Your task to perform on an android device: Open Chrome and go to the settings page Image 0: 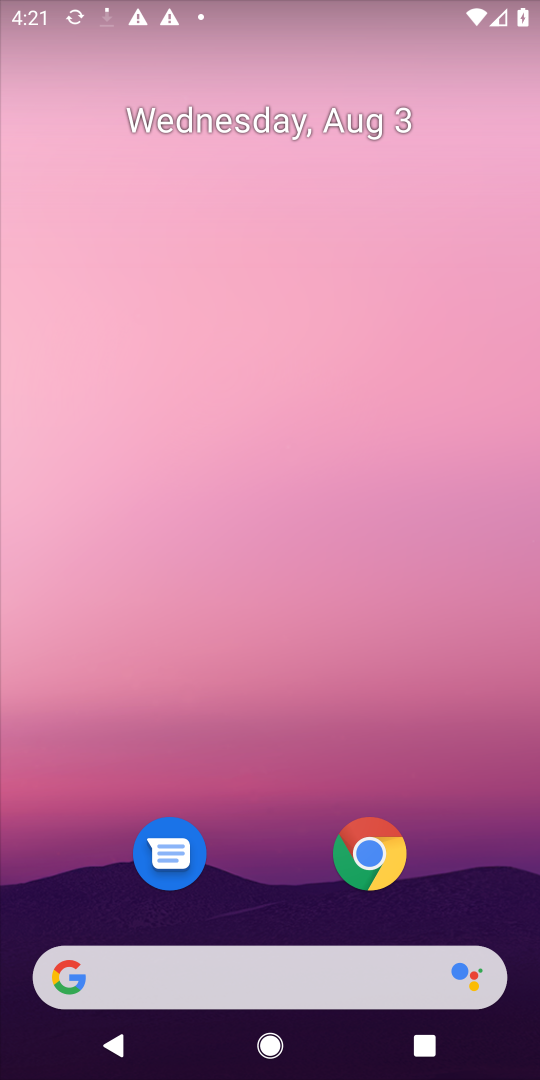
Step 0: click (372, 867)
Your task to perform on an android device: Open Chrome and go to the settings page Image 1: 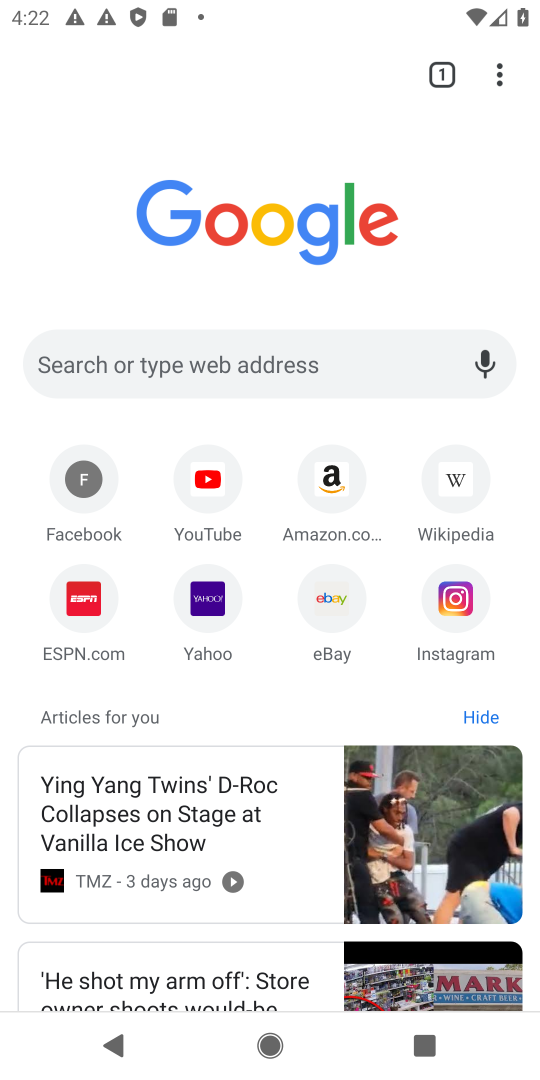
Step 1: click (504, 86)
Your task to perform on an android device: Open Chrome and go to the settings page Image 2: 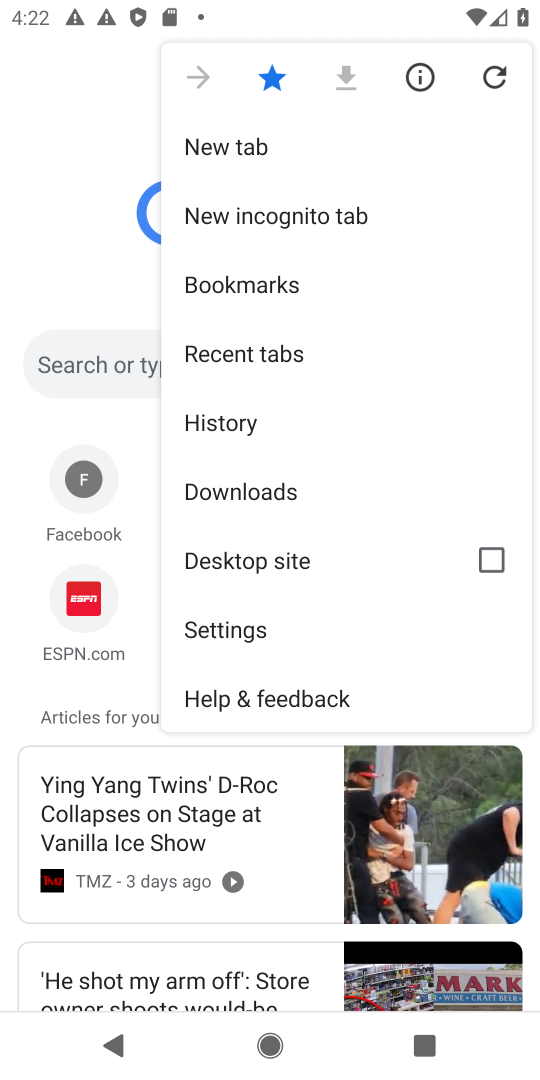
Step 2: click (297, 638)
Your task to perform on an android device: Open Chrome and go to the settings page Image 3: 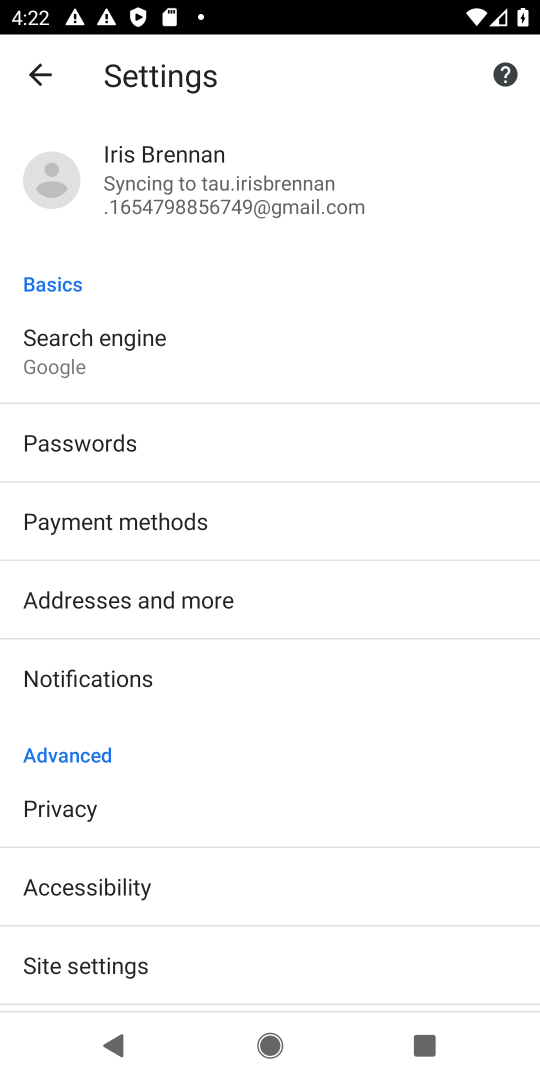
Step 3: task complete